Your task to perform on an android device: toggle location history Image 0: 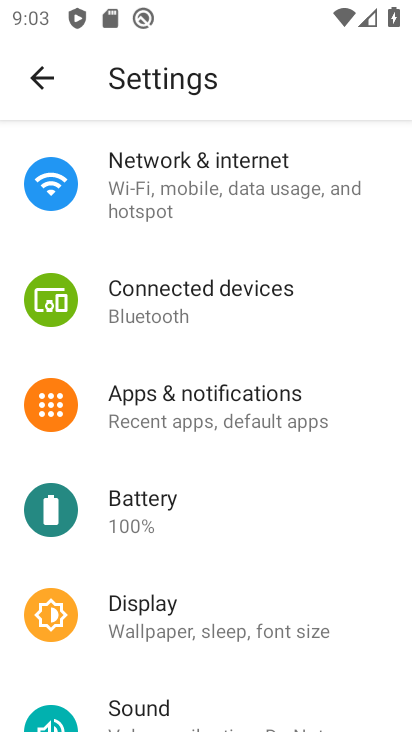
Step 0: drag from (185, 553) to (263, 118)
Your task to perform on an android device: toggle location history Image 1: 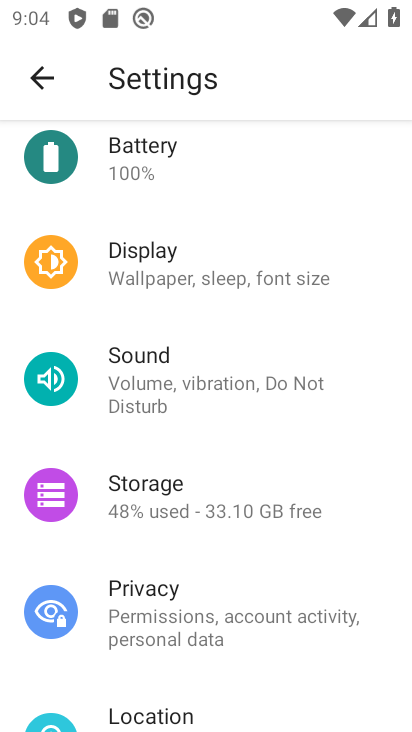
Step 1: drag from (187, 630) to (246, 325)
Your task to perform on an android device: toggle location history Image 2: 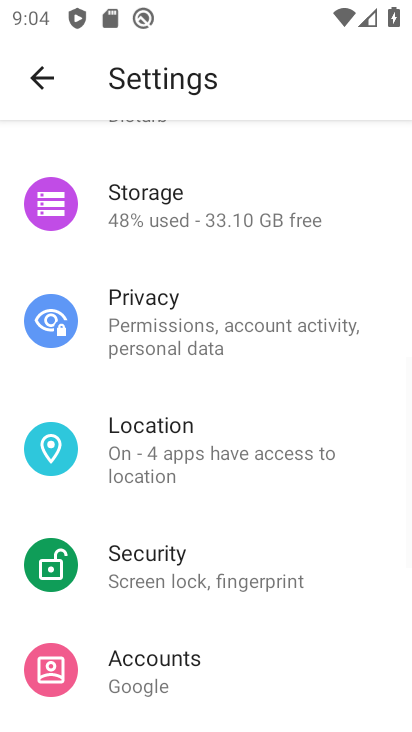
Step 2: click (182, 457)
Your task to perform on an android device: toggle location history Image 3: 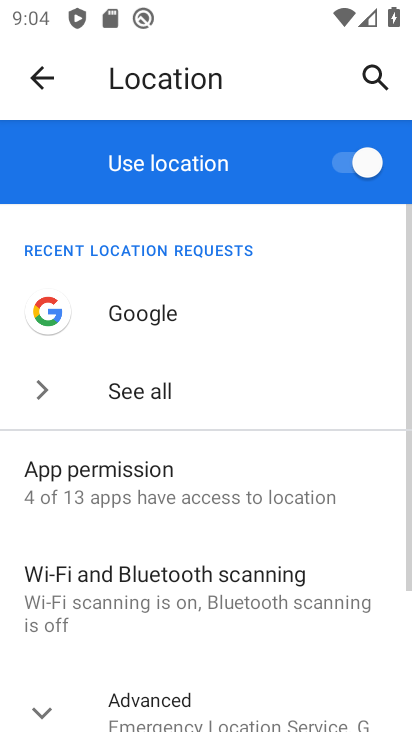
Step 3: click (168, 695)
Your task to perform on an android device: toggle location history Image 4: 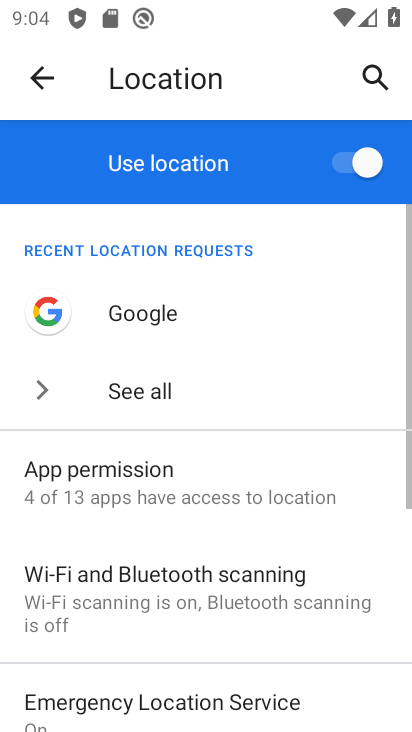
Step 4: drag from (173, 679) to (254, 263)
Your task to perform on an android device: toggle location history Image 5: 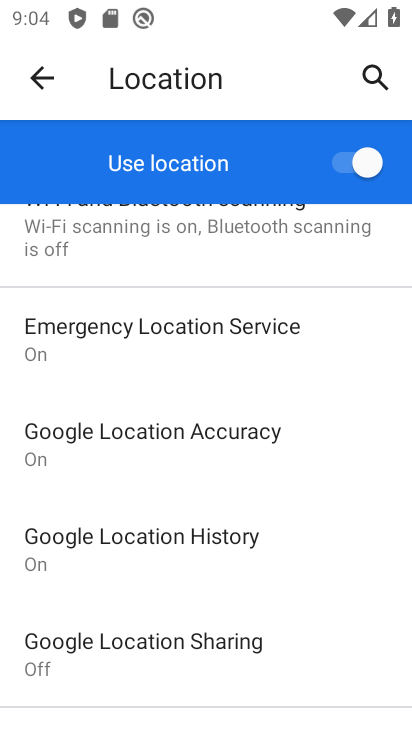
Step 5: click (193, 544)
Your task to perform on an android device: toggle location history Image 6: 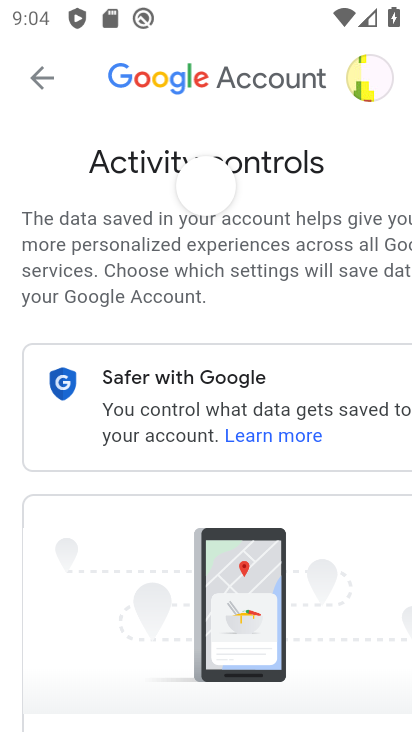
Step 6: drag from (253, 601) to (350, 170)
Your task to perform on an android device: toggle location history Image 7: 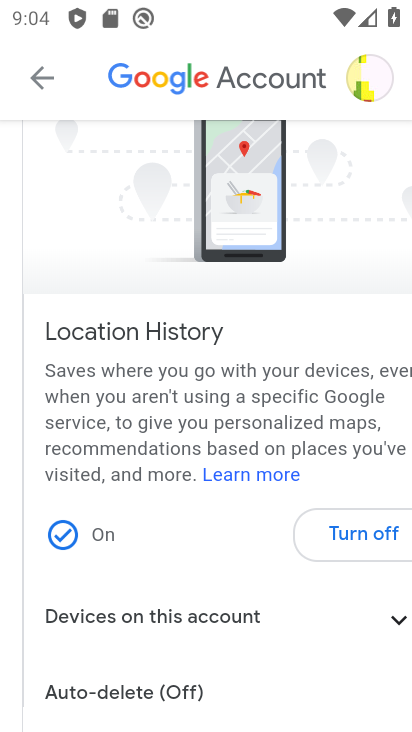
Step 7: click (335, 545)
Your task to perform on an android device: toggle location history Image 8: 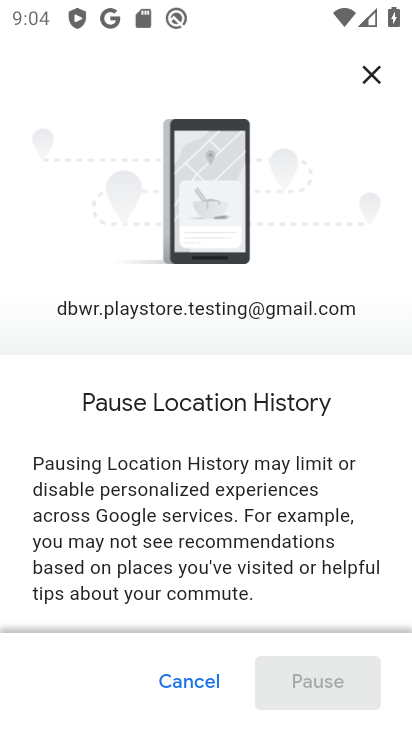
Step 8: drag from (279, 551) to (252, 174)
Your task to perform on an android device: toggle location history Image 9: 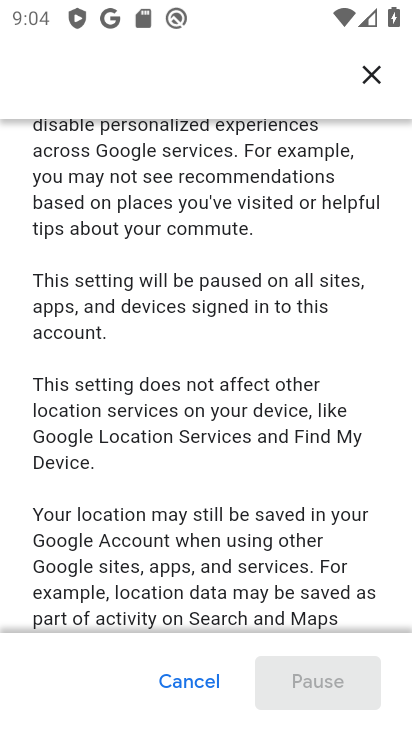
Step 9: drag from (281, 583) to (336, 205)
Your task to perform on an android device: toggle location history Image 10: 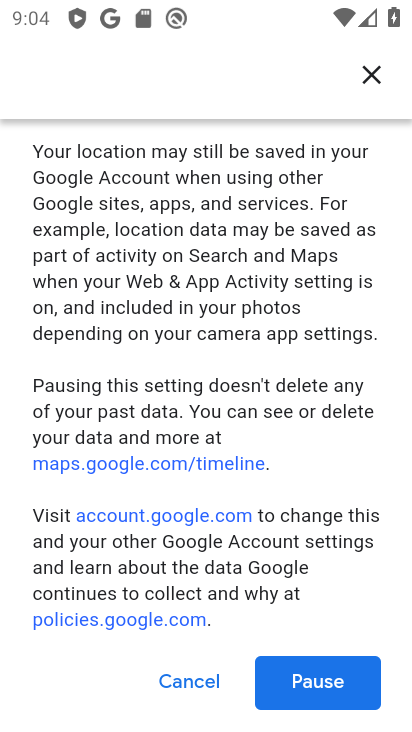
Step 10: click (341, 703)
Your task to perform on an android device: toggle location history Image 11: 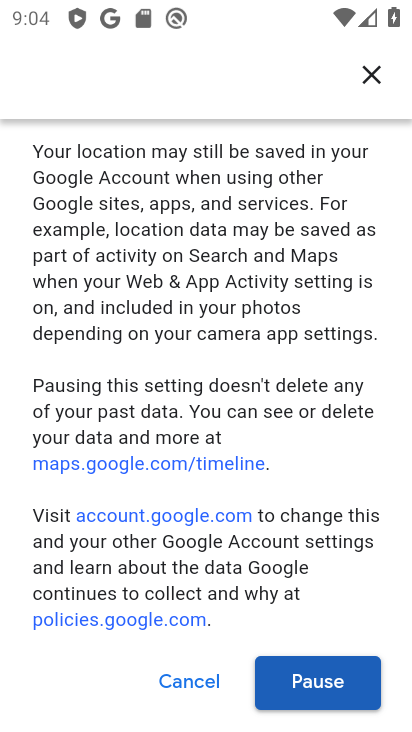
Step 11: click (340, 685)
Your task to perform on an android device: toggle location history Image 12: 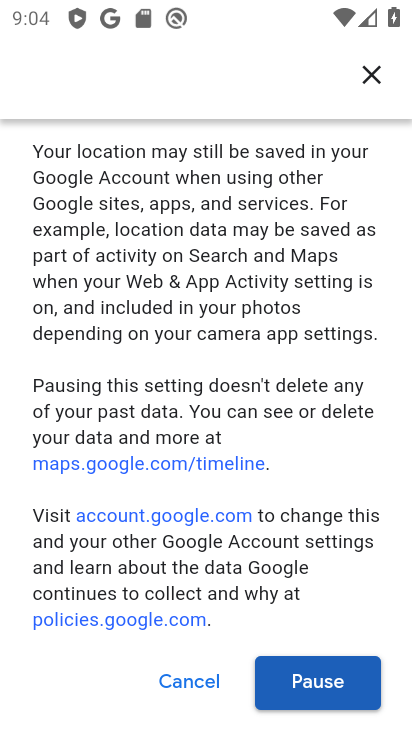
Step 12: click (335, 675)
Your task to perform on an android device: toggle location history Image 13: 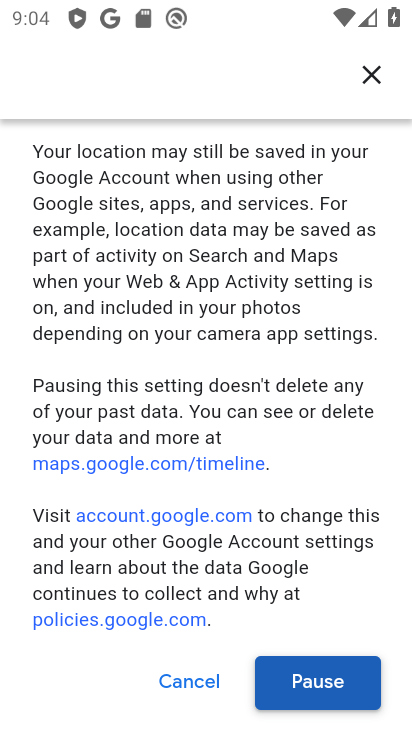
Step 13: click (309, 683)
Your task to perform on an android device: toggle location history Image 14: 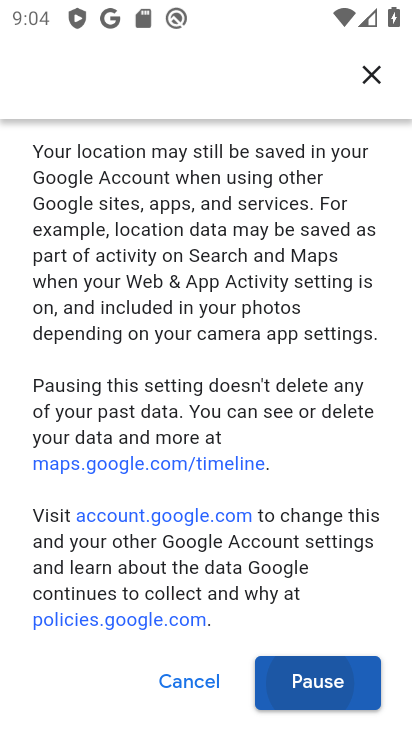
Step 14: click (309, 680)
Your task to perform on an android device: toggle location history Image 15: 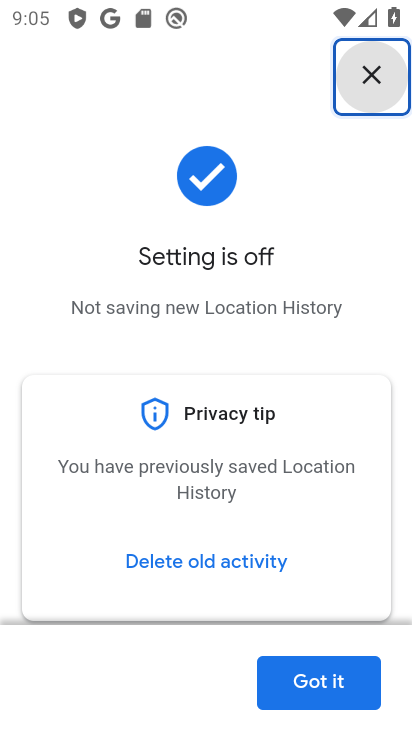
Step 15: task complete